Your task to perform on an android device: Is it going to rain today? Image 0: 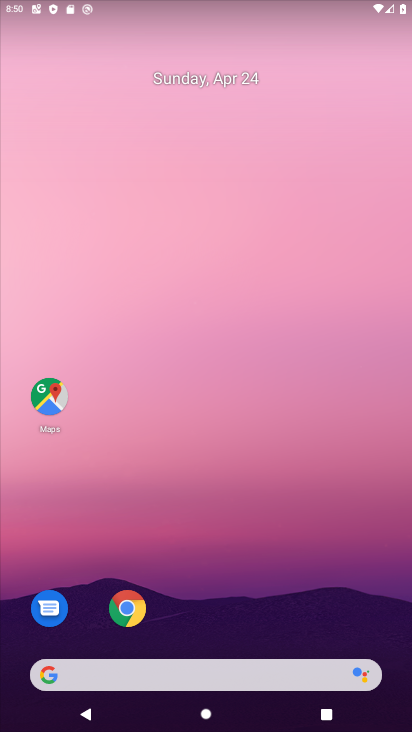
Step 0: drag from (265, 689) to (303, 201)
Your task to perform on an android device: Is it going to rain today? Image 1: 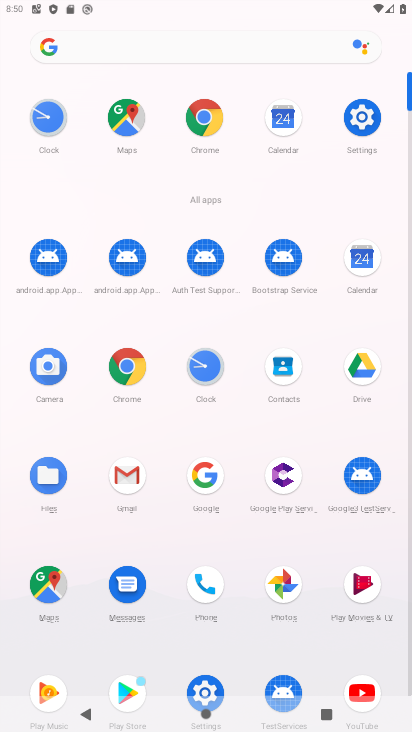
Step 1: click (143, 44)
Your task to perform on an android device: Is it going to rain today? Image 2: 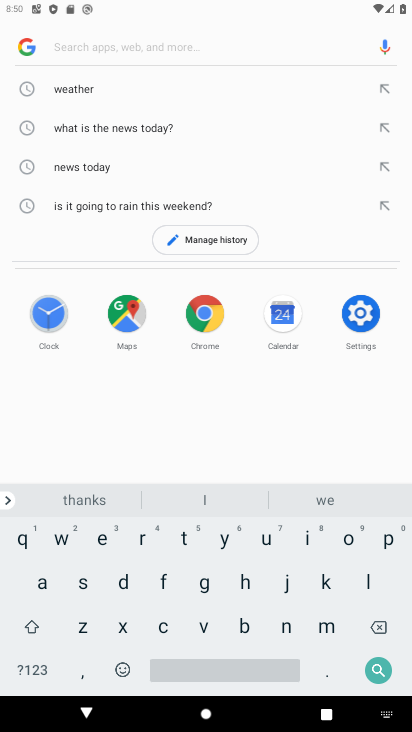
Step 2: click (78, 88)
Your task to perform on an android device: Is it going to rain today? Image 3: 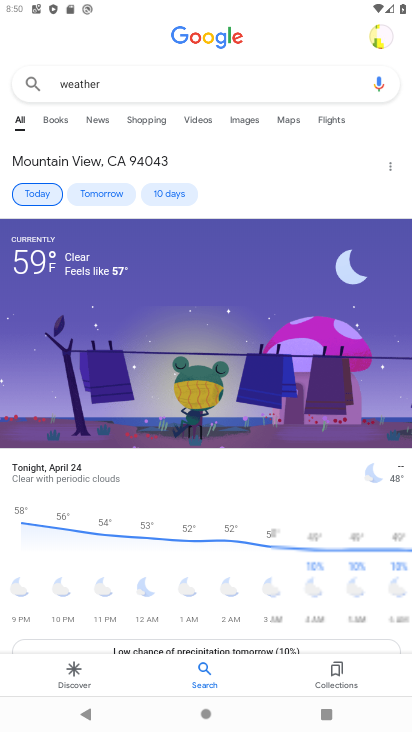
Step 3: task complete